Your task to perform on an android device: Open Android settings Image 0: 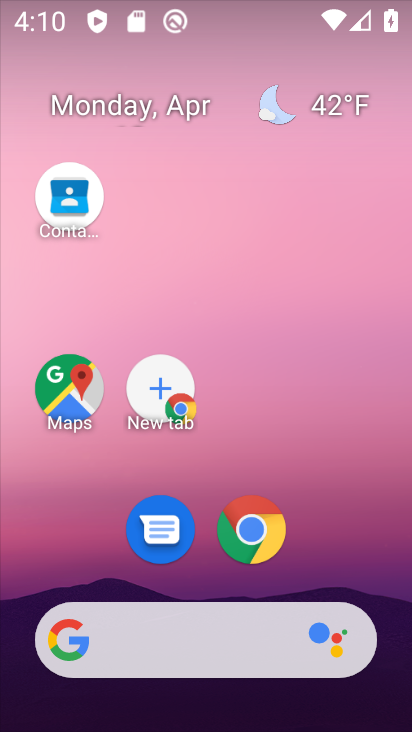
Step 0: click (72, 381)
Your task to perform on an android device: Open Android settings Image 1: 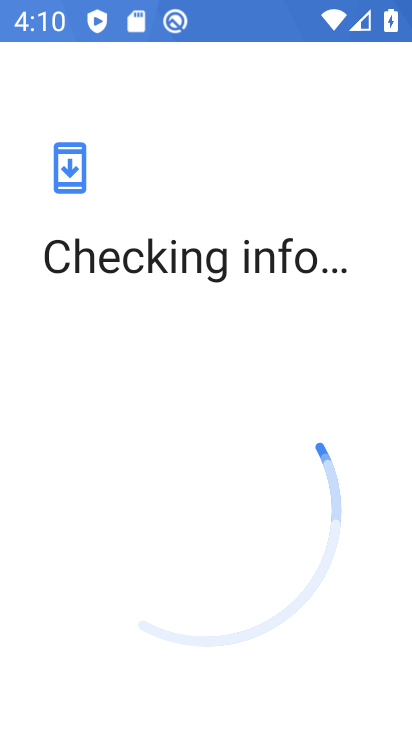
Step 1: press back button
Your task to perform on an android device: Open Android settings Image 2: 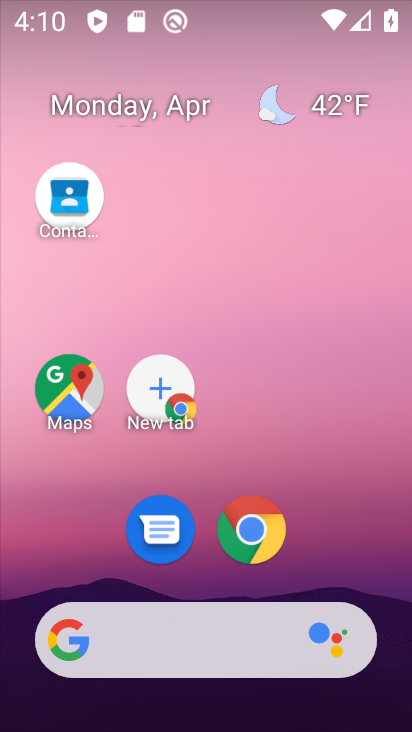
Step 2: drag from (188, 572) to (288, 6)
Your task to perform on an android device: Open Android settings Image 3: 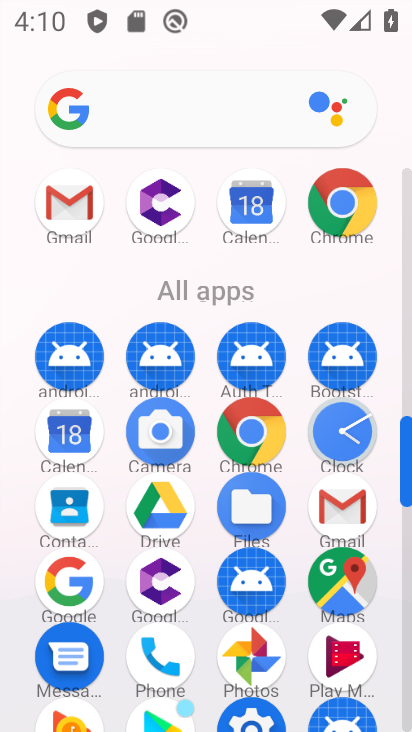
Step 3: drag from (218, 474) to (310, 11)
Your task to perform on an android device: Open Android settings Image 4: 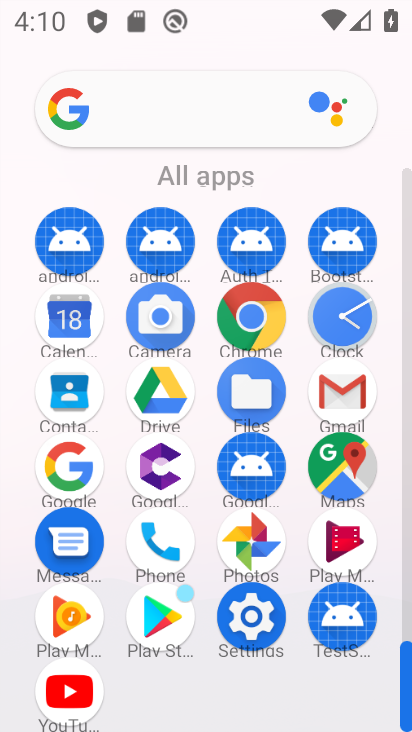
Step 4: click (244, 626)
Your task to perform on an android device: Open Android settings Image 5: 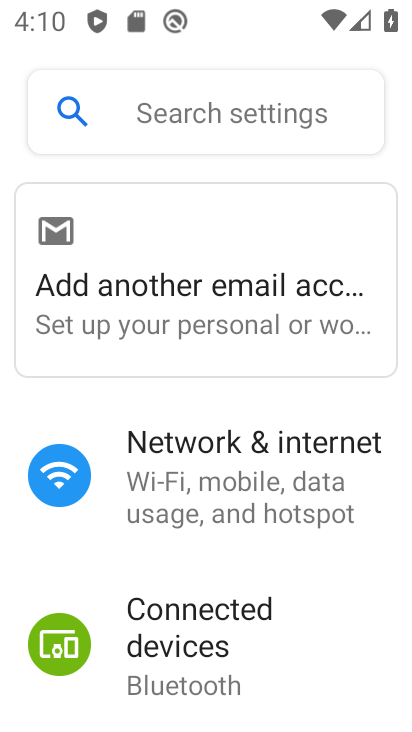
Step 5: drag from (213, 565) to (311, 25)
Your task to perform on an android device: Open Android settings Image 6: 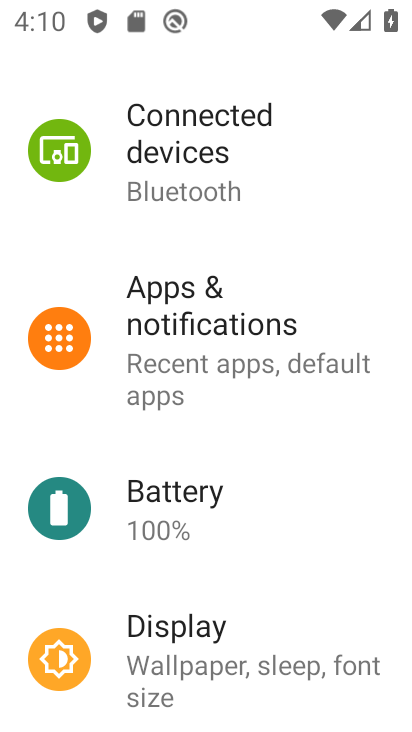
Step 6: drag from (188, 622) to (253, 153)
Your task to perform on an android device: Open Android settings Image 7: 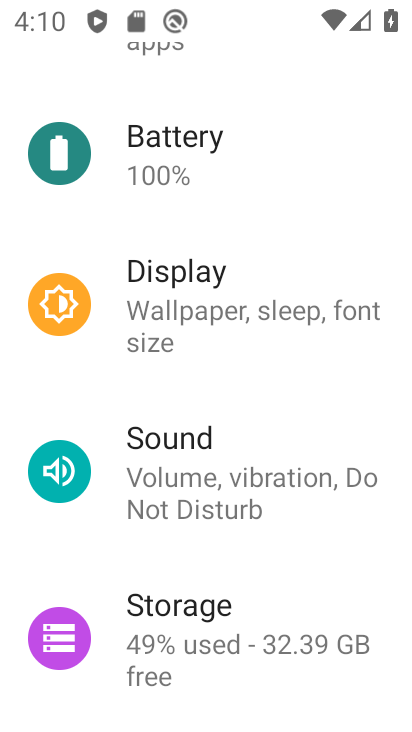
Step 7: drag from (161, 601) to (277, 118)
Your task to perform on an android device: Open Android settings Image 8: 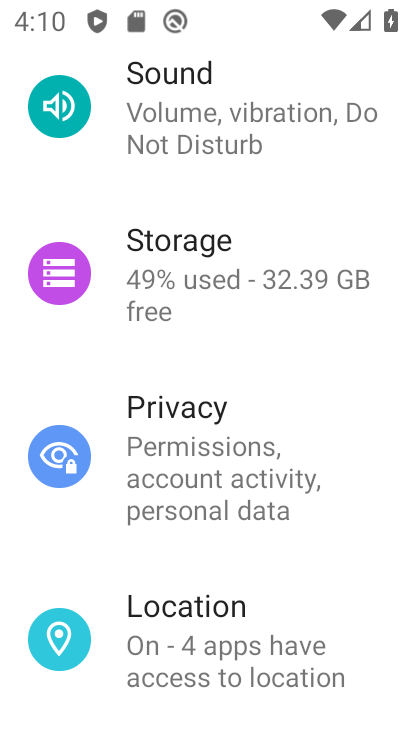
Step 8: drag from (177, 626) to (306, 80)
Your task to perform on an android device: Open Android settings Image 9: 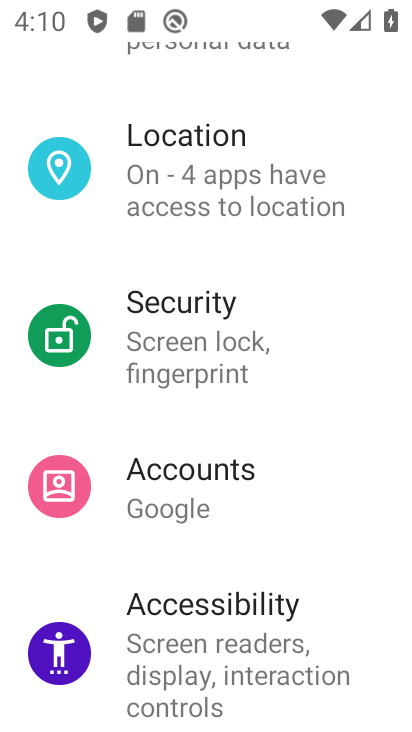
Step 9: drag from (168, 676) to (304, 102)
Your task to perform on an android device: Open Android settings Image 10: 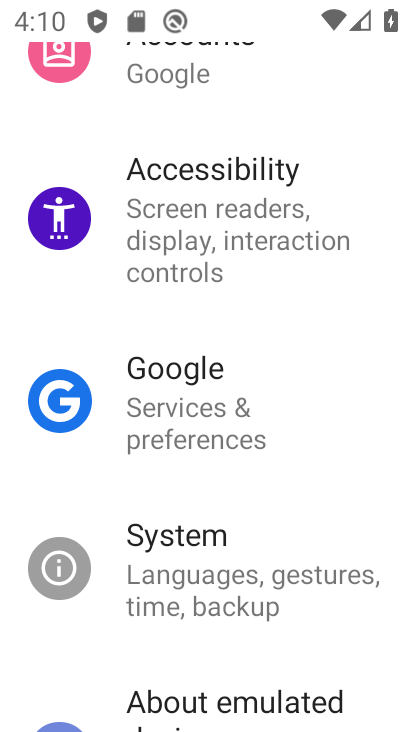
Step 10: drag from (204, 617) to (315, 12)
Your task to perform on an android device: Open Android settings Image 11: 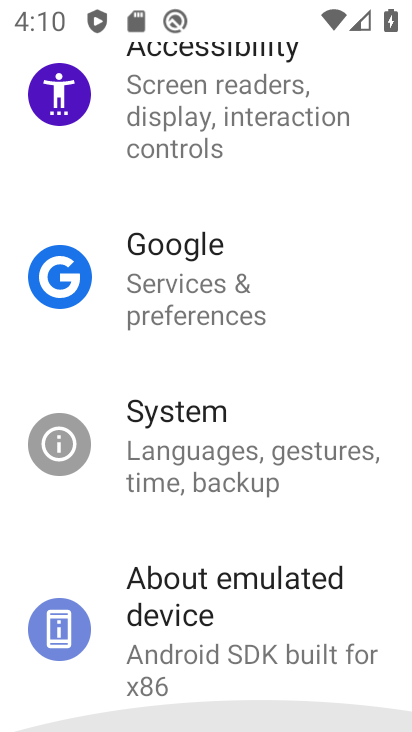
Step 11: click (259, 582)
Your task to perform on an android device: Open Android settings Image 12: 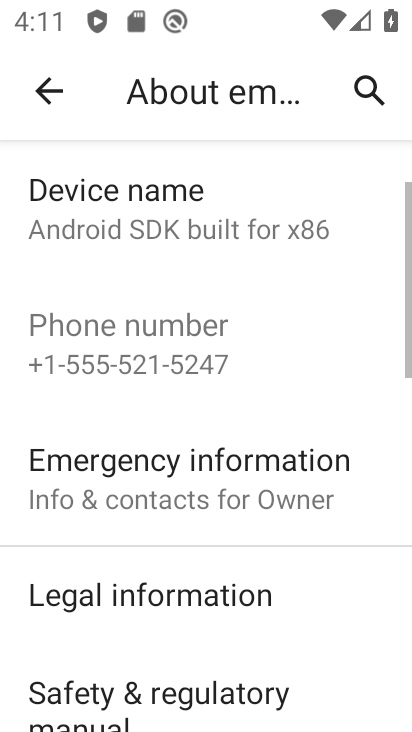
Step 12: drag from (132, 669) to (279, 113)
Your task to perform on an android device: Open Android settings Image 13: 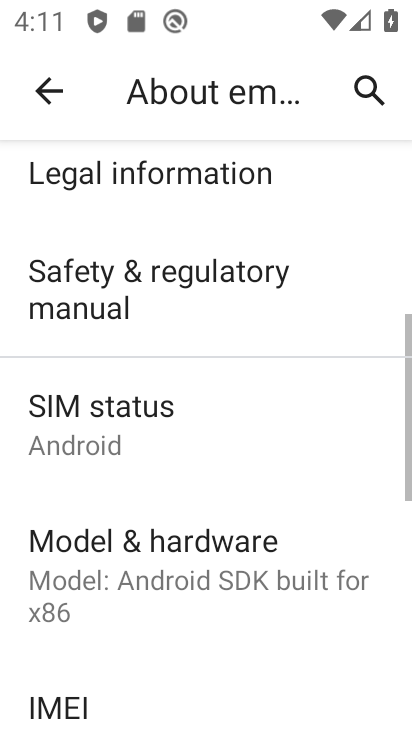
Step 13: drag from (189, 581) to (346, 58)
Your task to perform on an android device: Open Android settings Image 14: 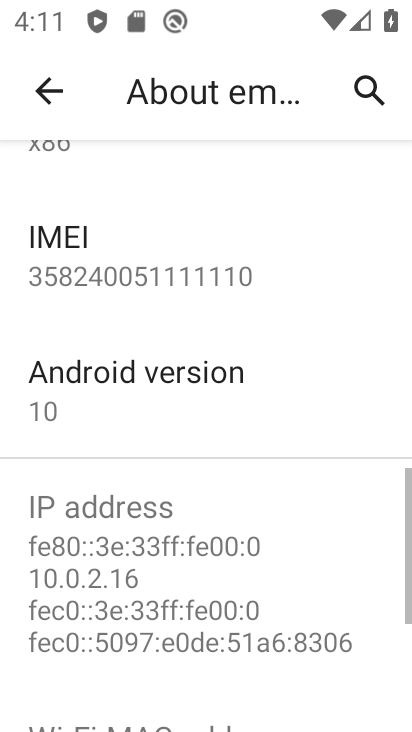
Step 14: click (69, 387)
Your task to perform on an android device: Open Android settings Image 15: 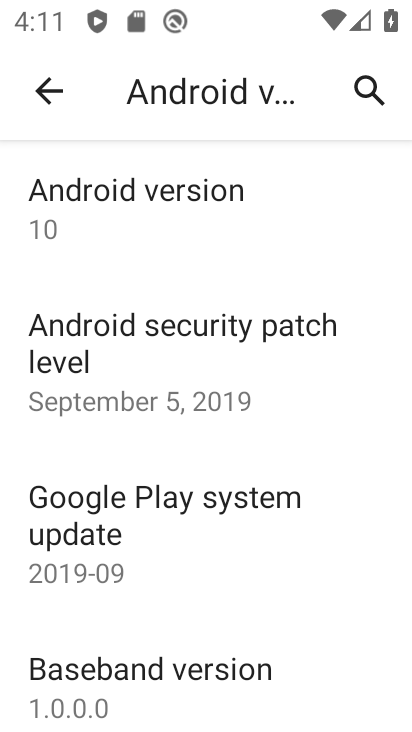
Step 15: task complete